Your task to perform on an android device: Do I have any events today? Image 0: 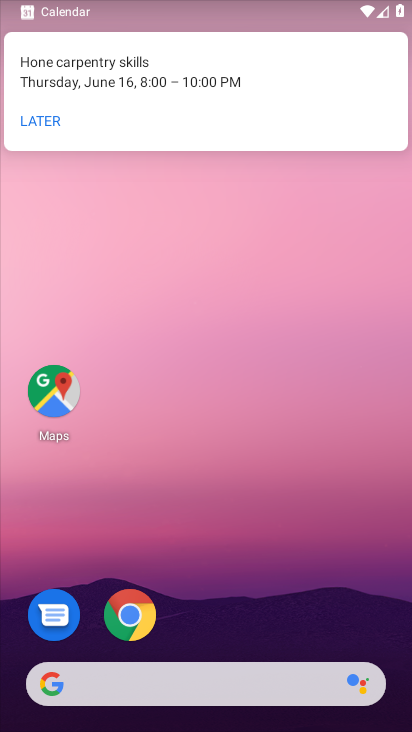
Step 0: drag from (219, 375) to (214, 63)
Your task to perform on an android device: Do I have any events today? Image 1: 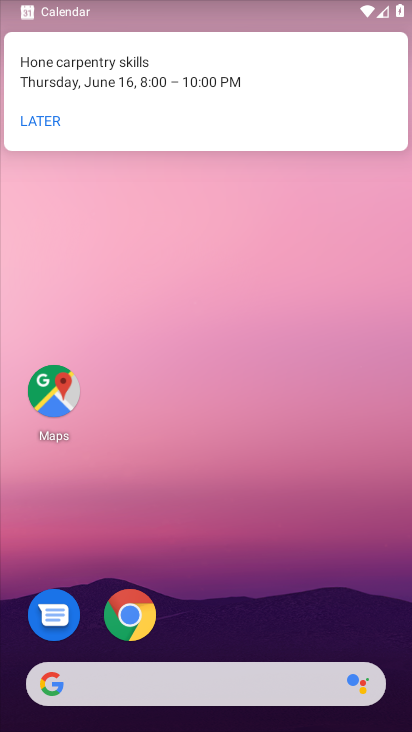
Step 1: drag from (223, 581) to (270, 15)
Your task to perform on an android device: Do I have any events today? Image 2: 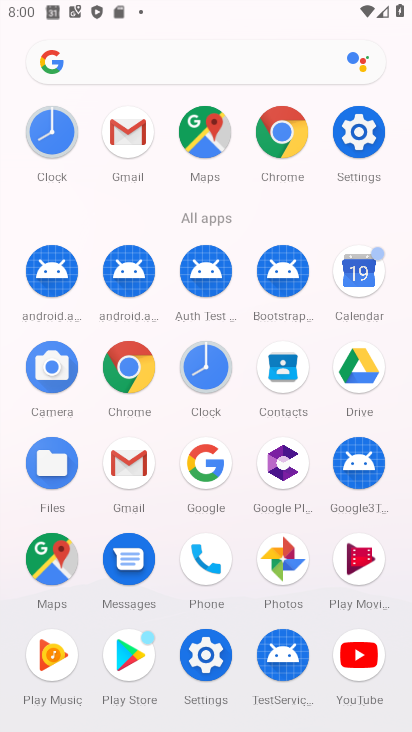
Step 2: click (374, 287)
Your task to perform on an android device: Do I have any events today? Image 3: 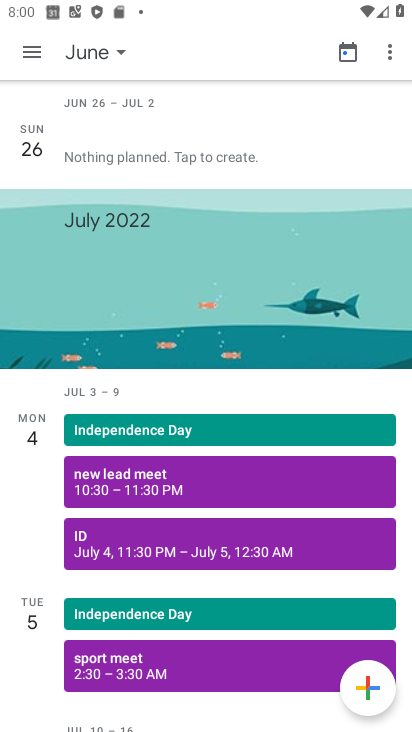
Step 3: click (102, 62)
Your task to perform on an android device: Do I have any events today? Image 4: 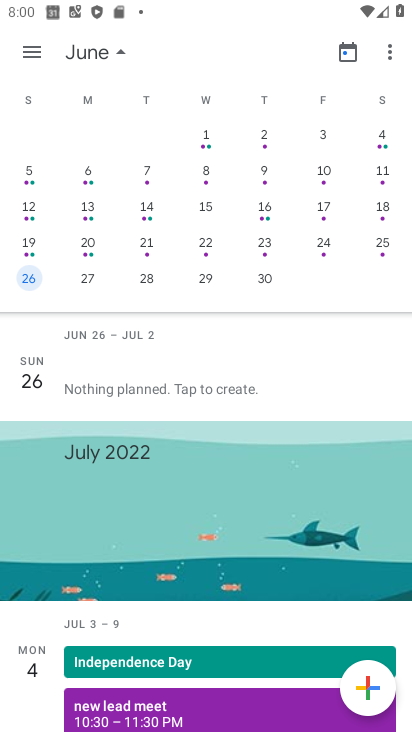
Step 4: drag from (89, 225) to (410, 271)
Your task to perform on an android device: Do I have any events today? Image 5: 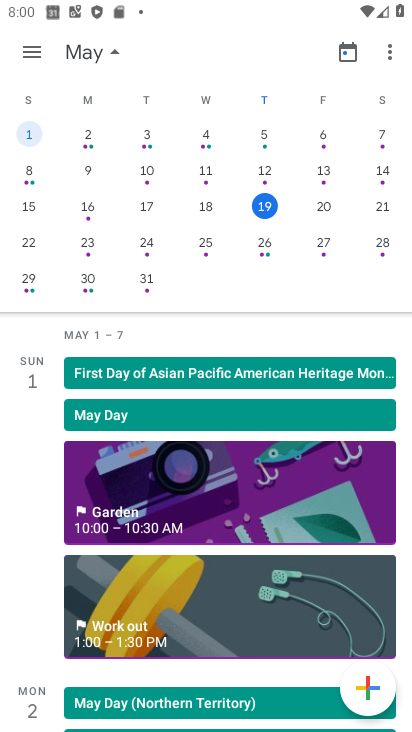
Step 5: click (264, 205)
Your task to perform on an android device: Do I have any events today? Image 6: 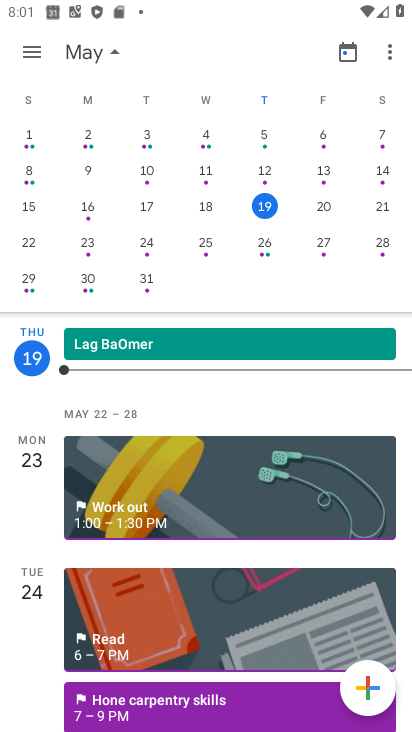
Step 6: task complete